Your task to perform on an android device: Open location settings Image 0: 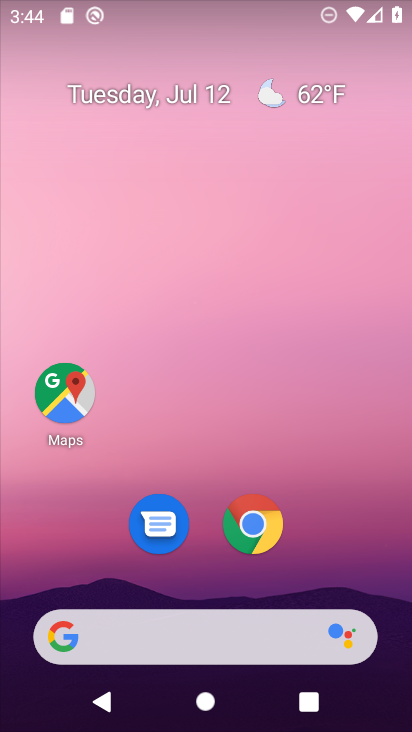
Step 0: drag from (344, 547) to (324, 64)
Your task to perform on an android device: Open location settings Image 1: 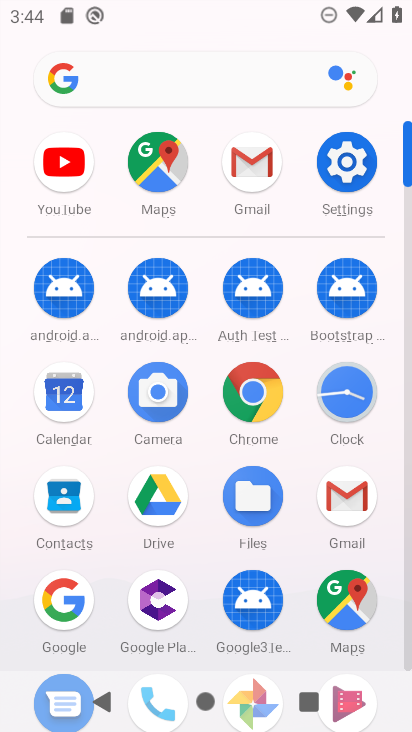
Step 1: click (338, 154)
Your task to perform on an android device: Open location settings Image 2: 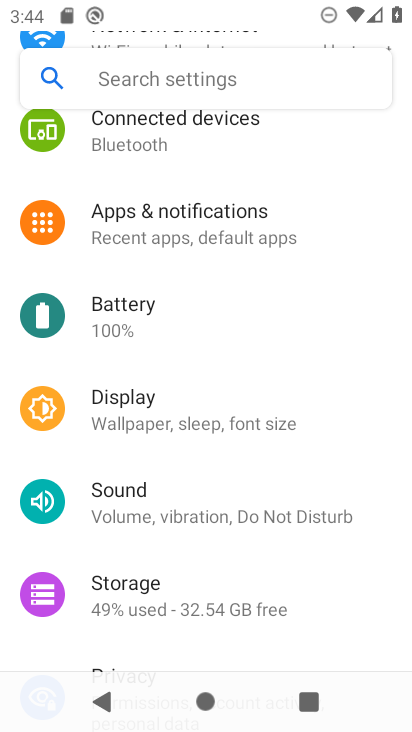
Step 2: drag from (272, 480) to (228, 91)
Your task to perform on an android device: Open location settings Image 3: 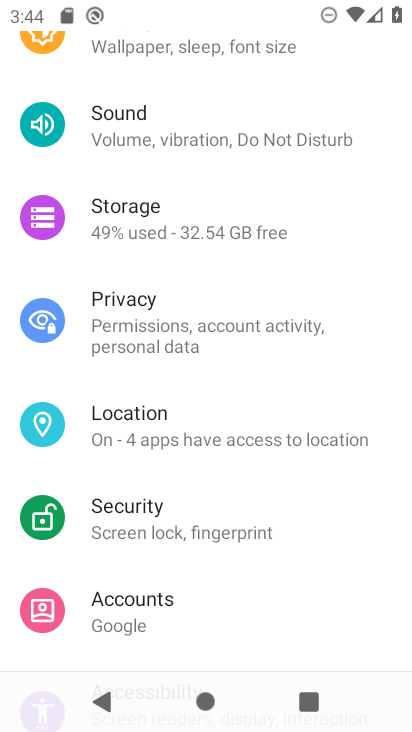
Step 3: click (214, 443)
Your task to perform on an android device: Open location settings Image 4: 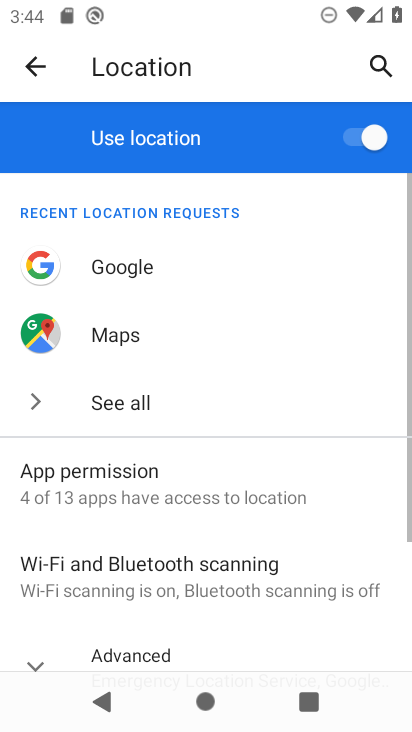
Step 4: task complete